Your task to perform on an android device: star an email in the gmail app Image 0: 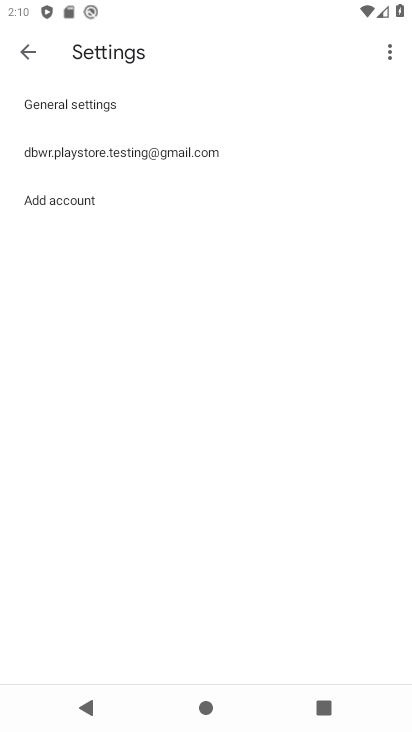
Step 0: drag from (287, 572) to (280, 533)
Your task to perform on an android device: star an email in the gmail app Image 1: 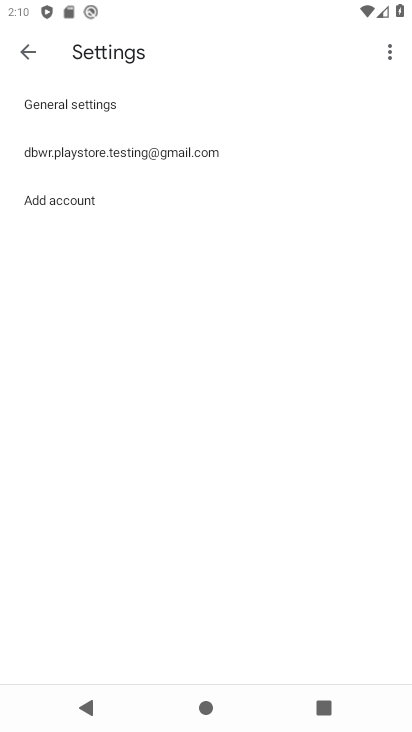
Step 1: press home button
Your task to perform on an android device: star an email in the gmail app Image 2: 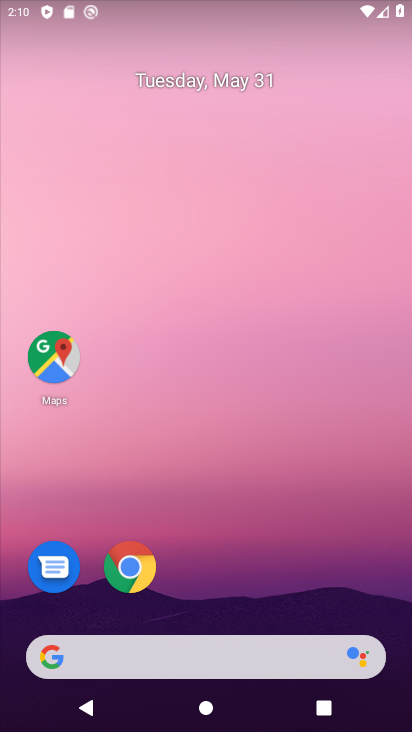
Step 2: drag from (243, 622) to (192, 113)
Your task to perform on an android device: star an email in the gmail app Image 3: 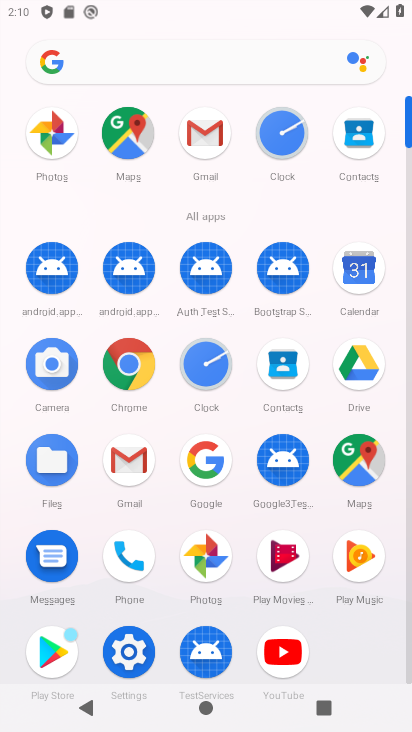
Step 3: click (211, 145)
Your task to perform on an android device: star an email in the gmail app Image 4: 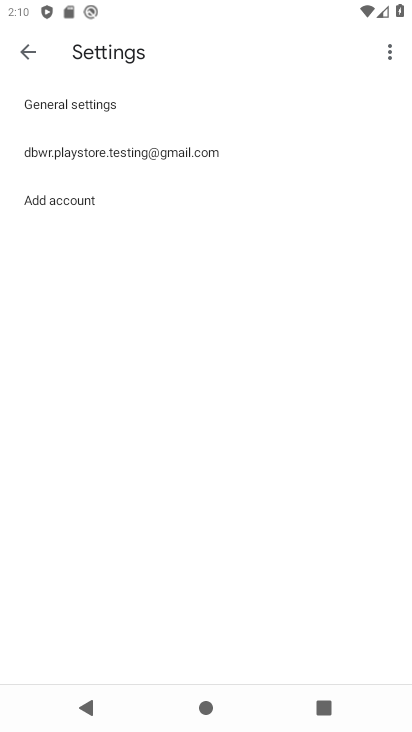
Step 4: click (210, 146)
Your task to perform on an android device: star an email in the gmail app Image 5: 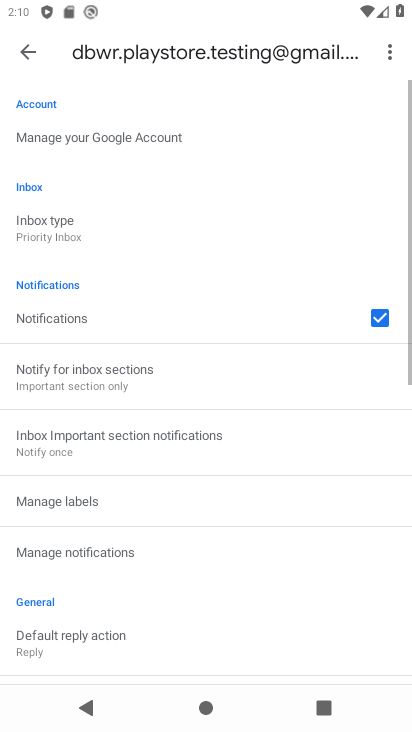
Step 5: click (37, 49)
Your task to perform on an android device: star an email in the gmail app Image 6: 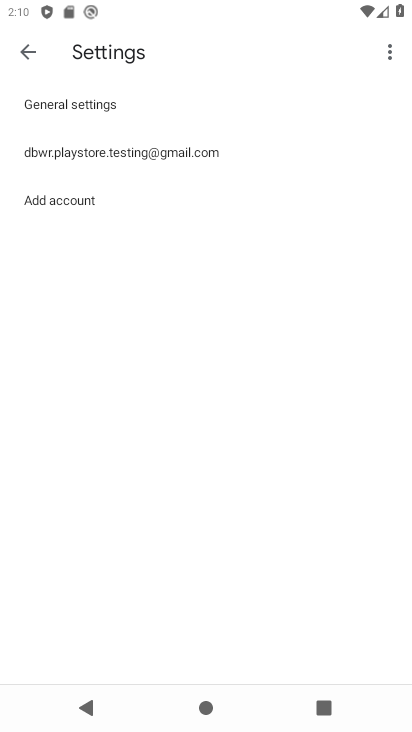
Step 6: press back button
Your task to perform on an android device: star an email in the gmail app Image 7: 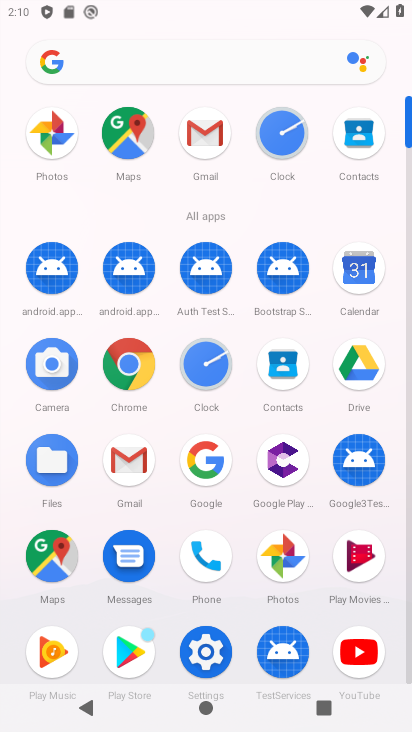
Step 7: click (197, 147)
Your task to perform on an android device: star an email in the gmail app Image 8: 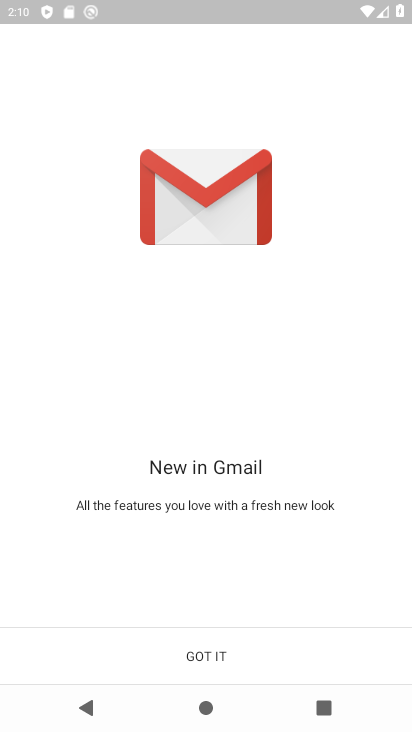
Step 8: click (223, 664)
Your task to perform on an android device: star an email in the gmail app Image 9: 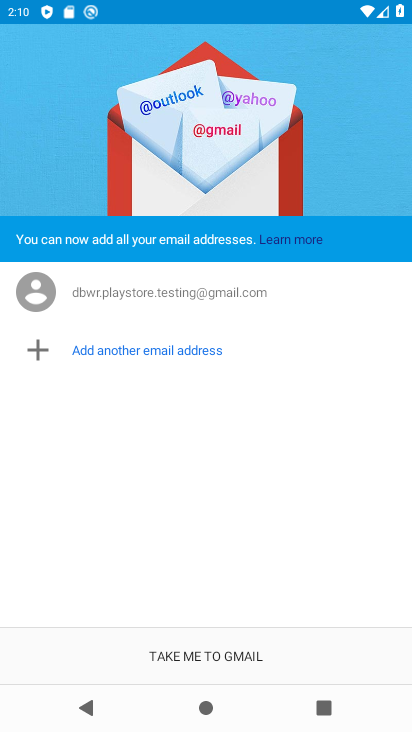
Step 9: click (223, 664)
Your task to perform on an android device: star an email in the gmail app Image 10: 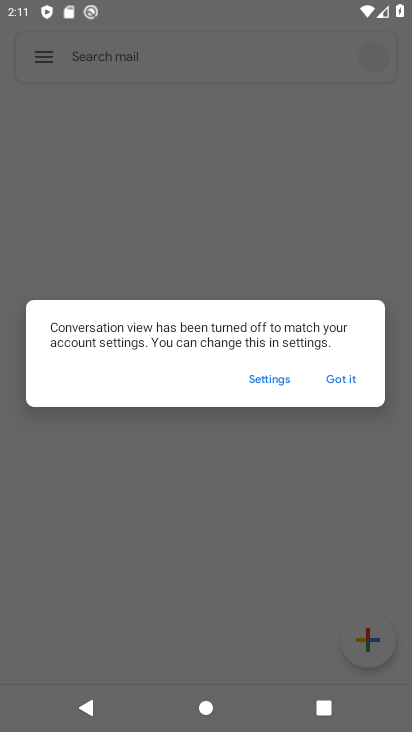
Step 10: click (342, 387)
Your task to perform on an android device: star an email in the gmail app Image 11: 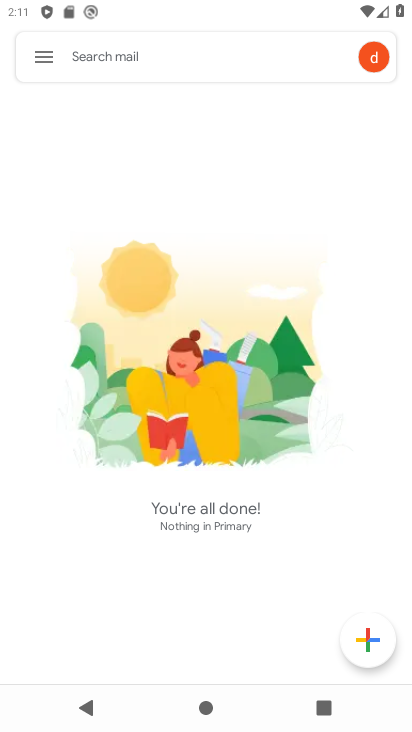
Step 11: task complete